Your task to perform on an android device: Show me popular videos on Youtube Image 0: 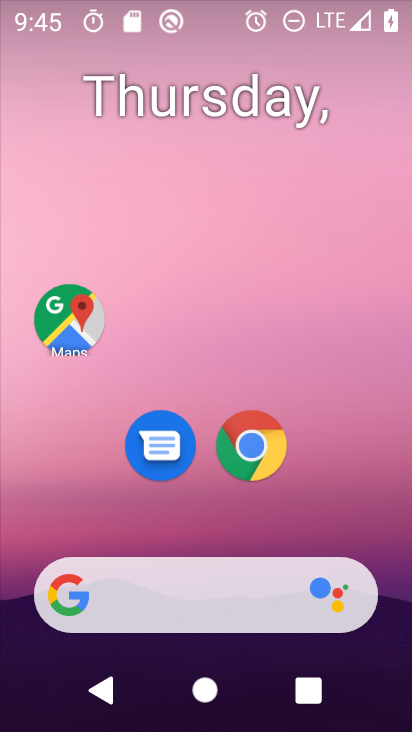
Step 0: drag from (208, 523) to (200, 209)
Your task to perform on an android device: Show me popular videos on Youtube Image 1: 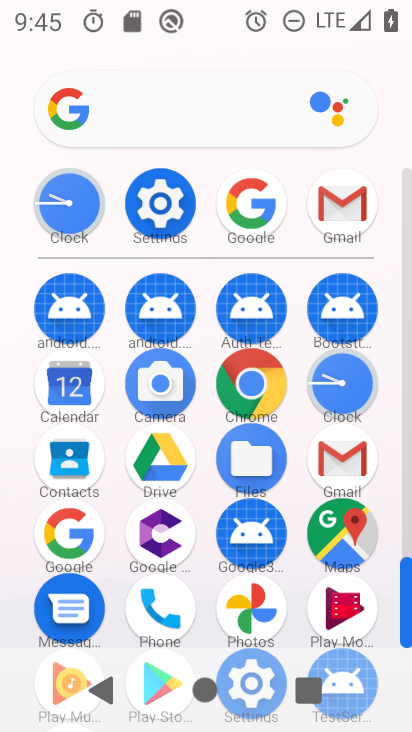
Step 1: drag from (206, 583) to (206, 349)
Your task to perform on an android device: Show me popular videos on Youtube Image 2: 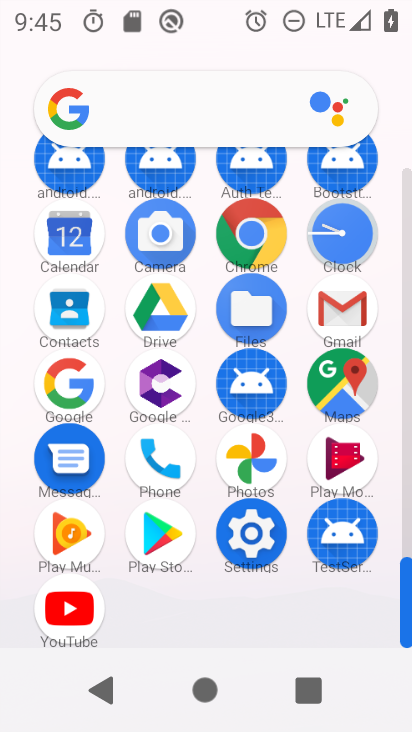
Step 2: click (85, 629)
Your task to perform on an android device: Show me popular videos on Youtube Image 3: 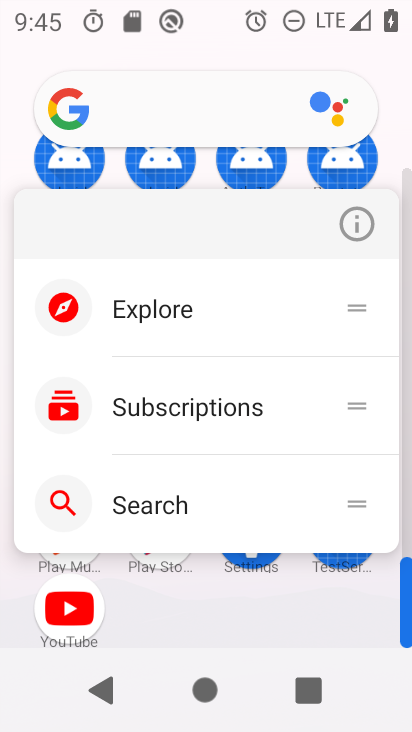
Step 3: click (361, 237)
Your task to perform on an android device: Show me popular videos on Youtube Image 4: 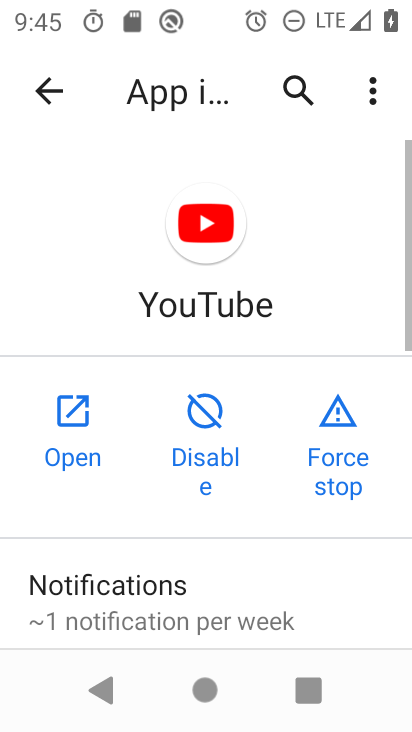
Step 4: click (68, 442)
Your task to perform on an android device: Show me popular videos on Youtube Image 5: 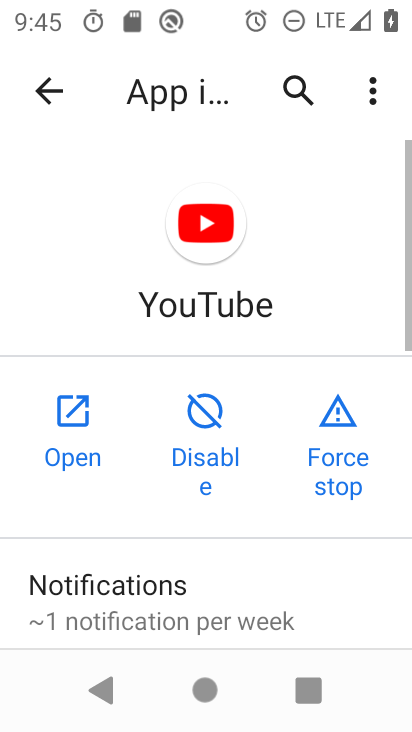
Step 5: click (68, 443)
Your task to perform on an android device: Show me popular videos on Youtube Image 6: 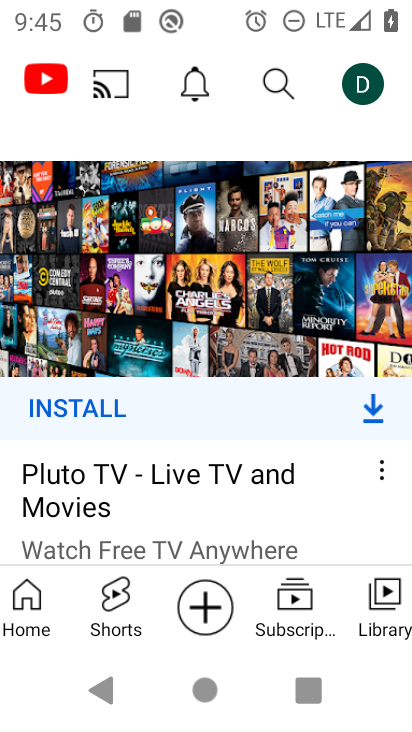
Step 6: task complete